Your task to perform on an android device: Open Google Chrome Image 0: 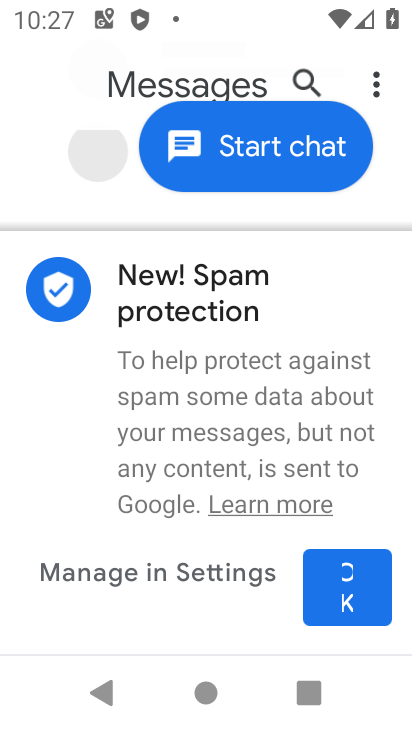
Step 0: press home button
Your task to perform on an android device: Open Google Chrome Image 1: 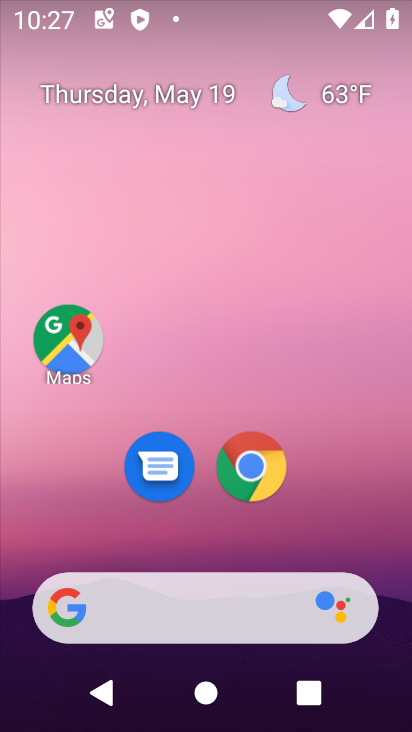
Step 1: drag from (399, 618) to (317, 55)
Your task to perform on an android device: Open Google Chrome Image 2: 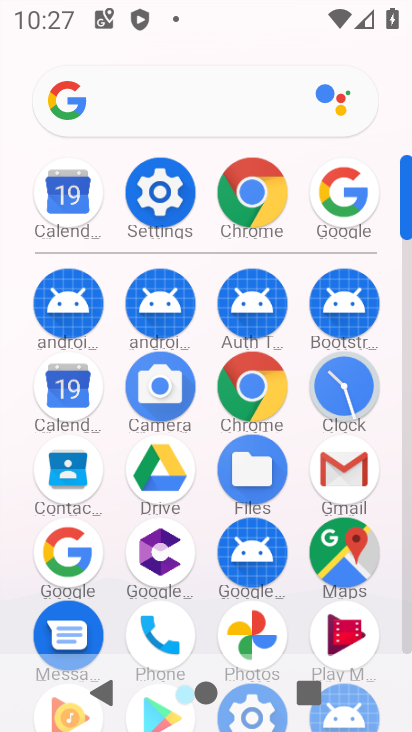
Step 2: click (240, 204)
Your task to perform on an android device: Open Google Chrome Image 3: 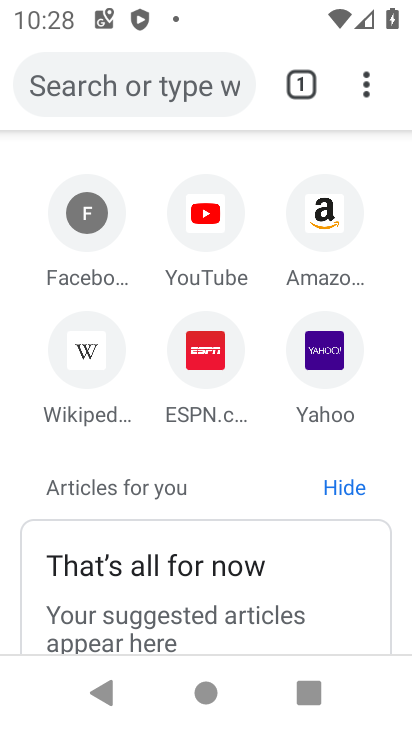
Step 3: task complete